Your task to perform on an android device: Open the stopwatch Image 0: 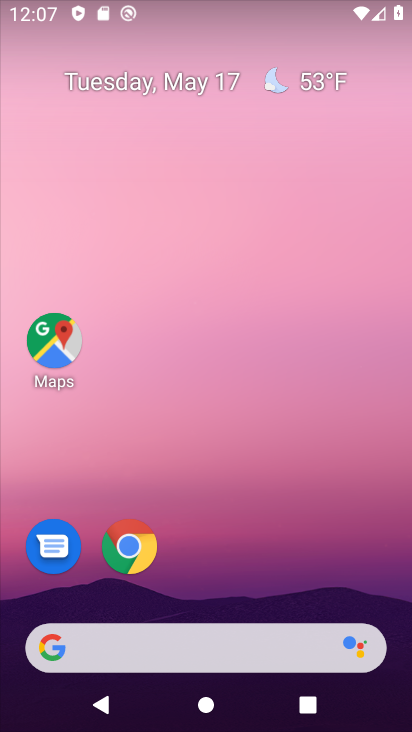
Step 0: drag from (265, 439) to (387, 17)
Your task to perform on an android device: Open the stopwatch Image 1: 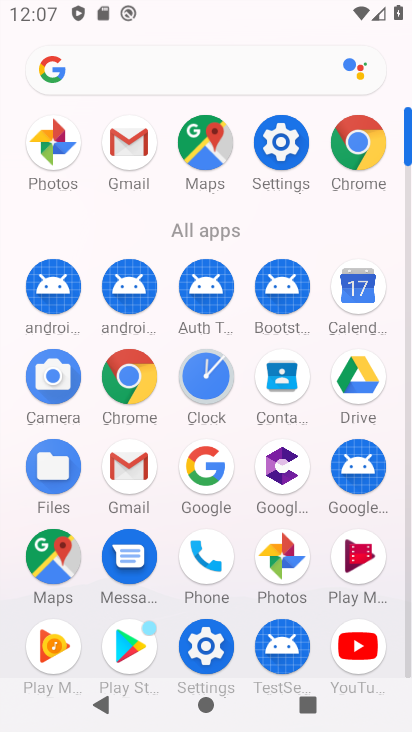
Step 1: click (203, 381)
Your task to perform on an android device: Open the stopwatch Image 2: 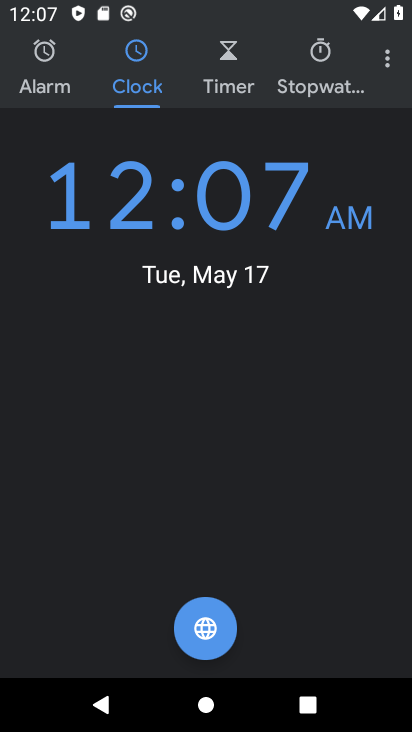
Step 2: click (308, 84)
Your task to perform on an android device: Open the stopwatch Image 3: 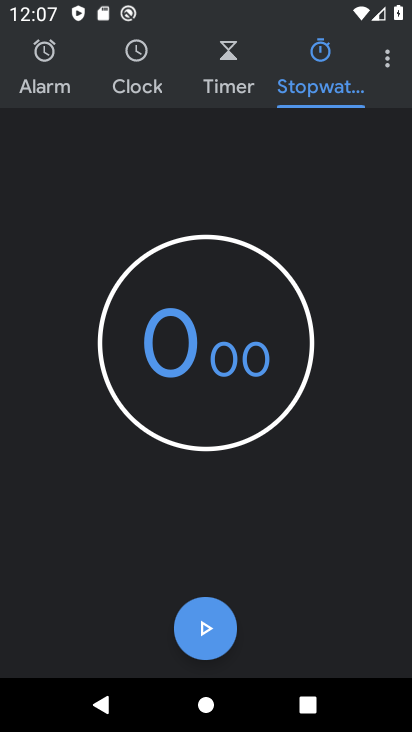
Step 3: click (205, 368)
Your task to perform on an android device: Open the stopwatch Image 4: 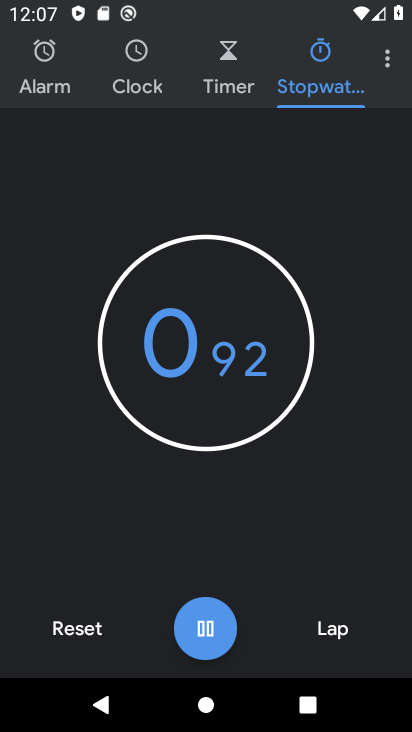
Step 4: click (217, 364)
Your task to perform on an android device: Open the stopwatch Image 5: 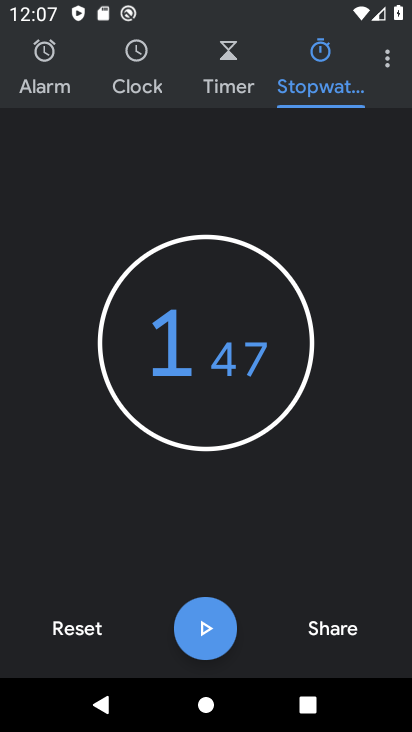
Step 5: task complete